Your task to perform on an android device: Clear the cart on newegg. Add "alienware aurora" to the cart on newegg Image 0: 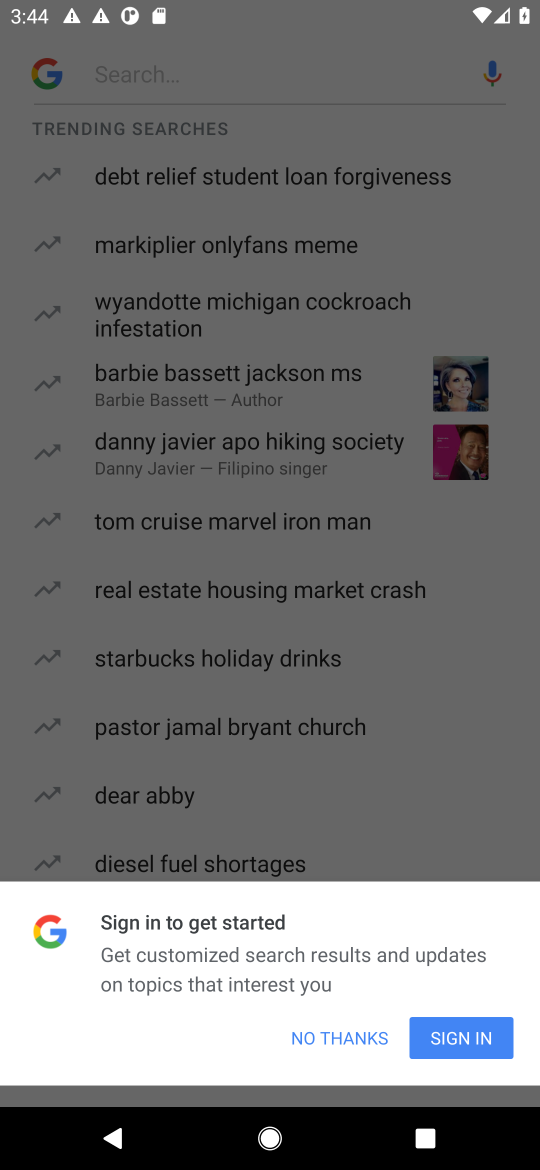
Step 0: press home button
Your task to perform on an android device: Clear the cart on newegg. Add "alienware aurora" to the cart on newegg Image 1: 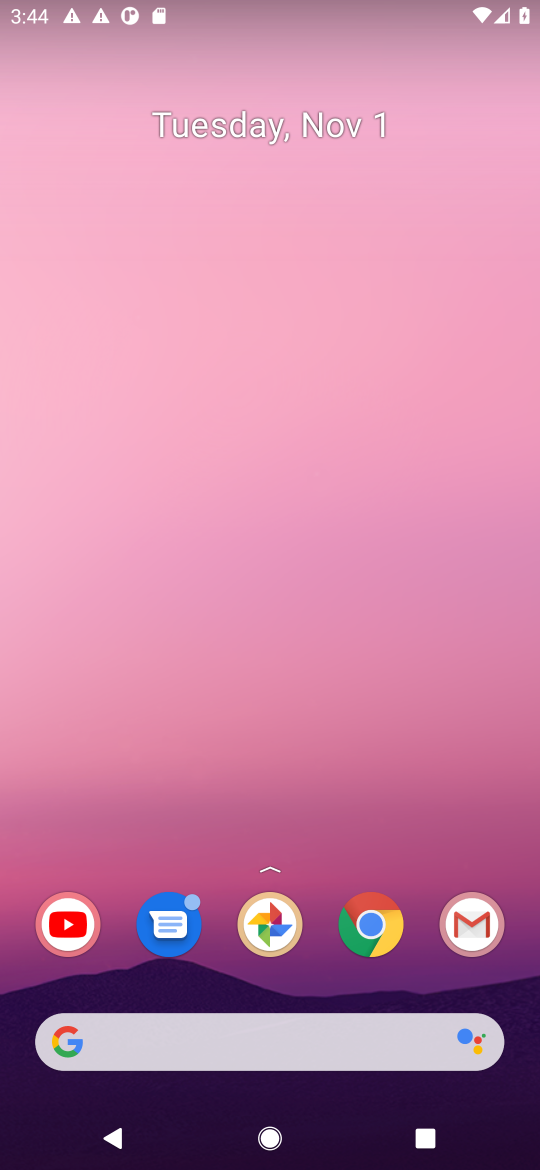
Step 1: drag from (155, 879) to (196, 0)
Your task to perform on an android device: Clear the cart on newegg. Add "alienware aurora" to the cart on newegg Image 2: 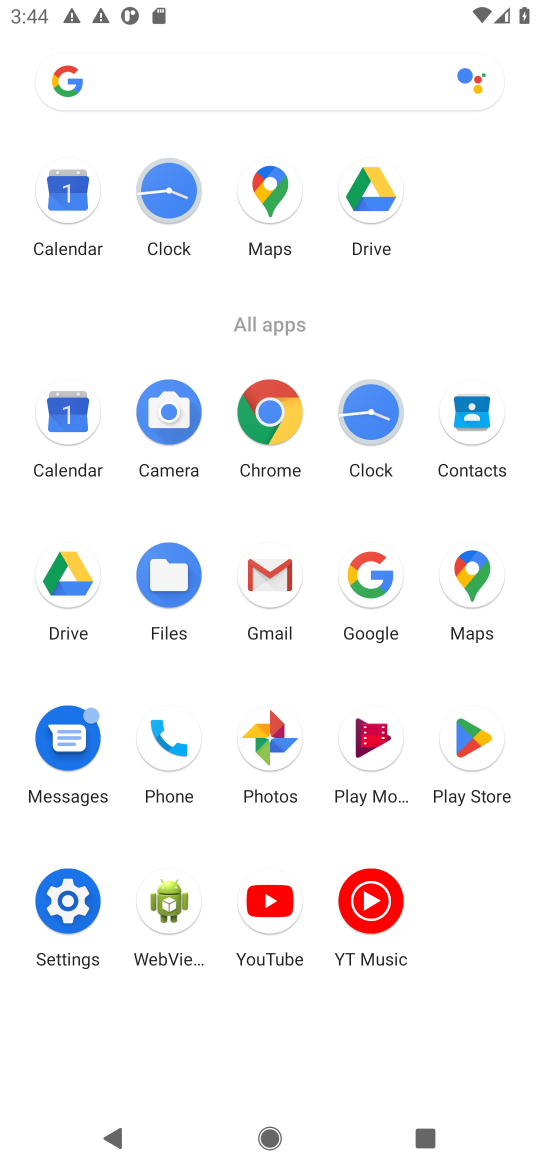
Step 2: click (289, 414)
Your task to perform on an android device: Clear the cart on newegg. Add "alienware aurora" to the cart on newegg Image 3: 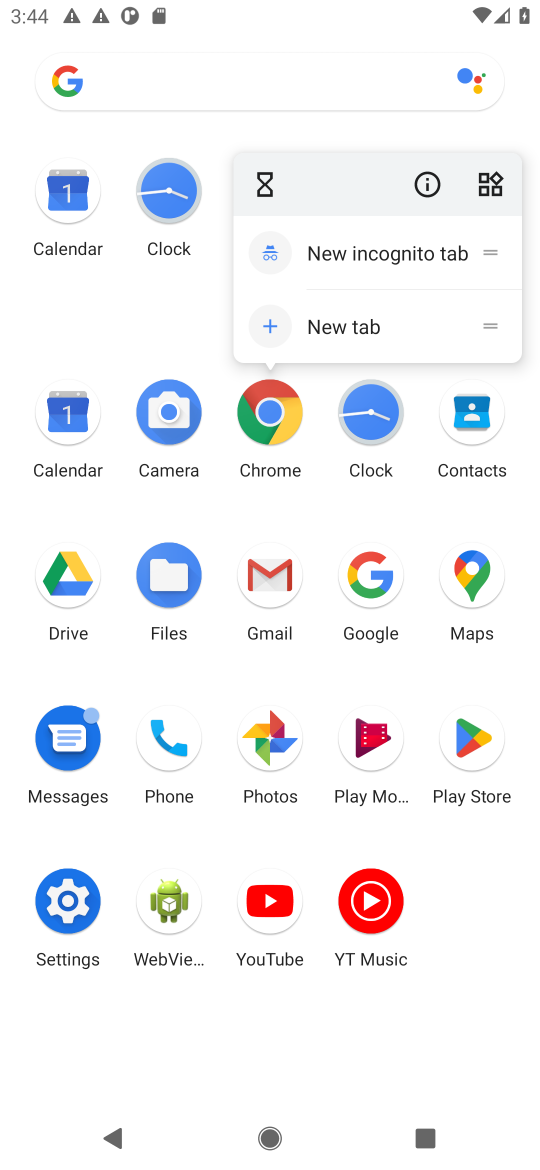
Step 3: click (289, 416)
Your task to perform on an android device: Clear the cart on newegg. Add "alienware aurora" to the cart on newegg Image 4: 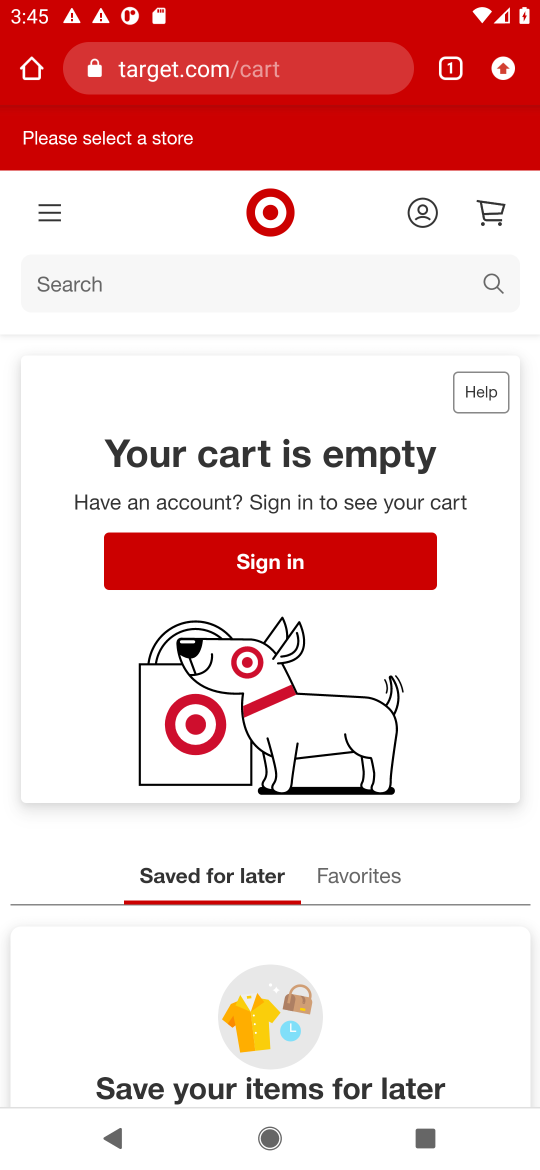
Step 4: click (259, 64)
Your task to perform on an android device: Clear the cart on newegg. Add "alienware aurora" to the cart on newegg Image 5: 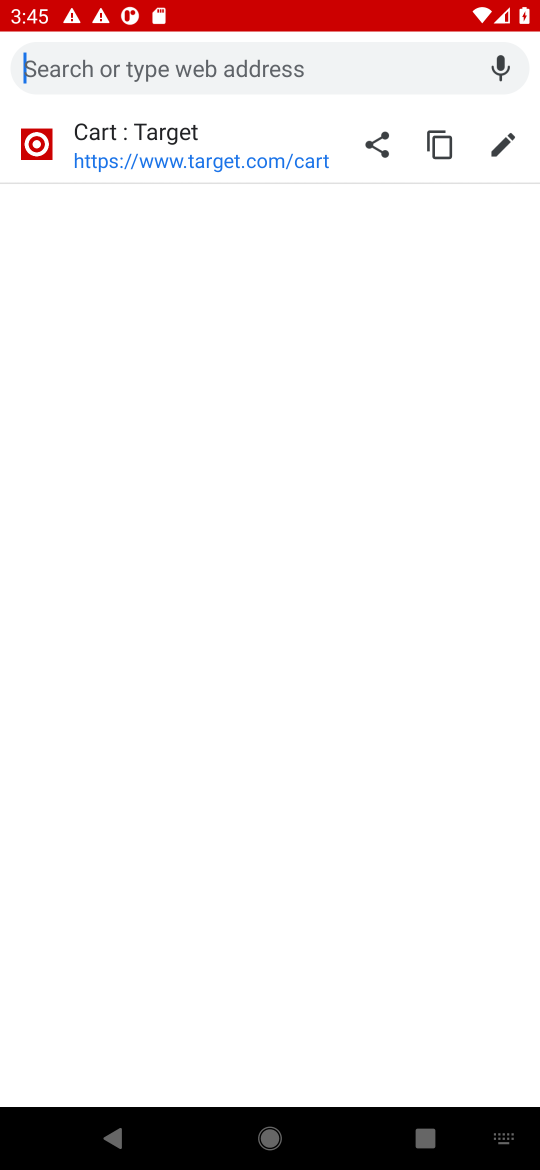
Step 5: type "newegg"
Your task to perform on an android device: Clear the cart on newegg. Add "alienware aurora" to the cart on newegg Image 6: 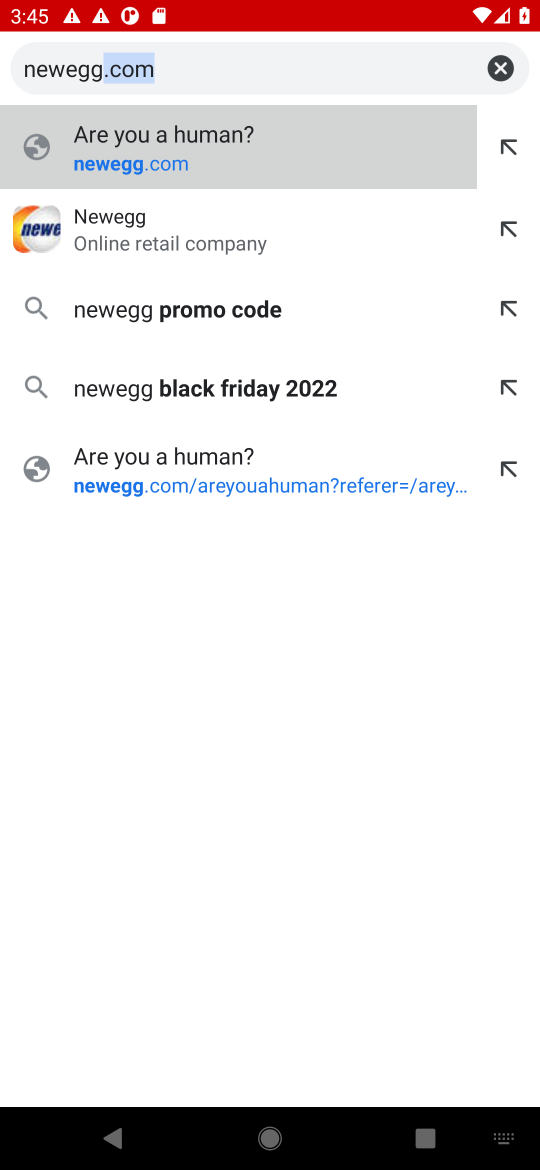
Step 6: press enter
Your task to perform on an android device: Clear the cart on newegg. Add "alienware aurora" to the cart on newegg Image 7: 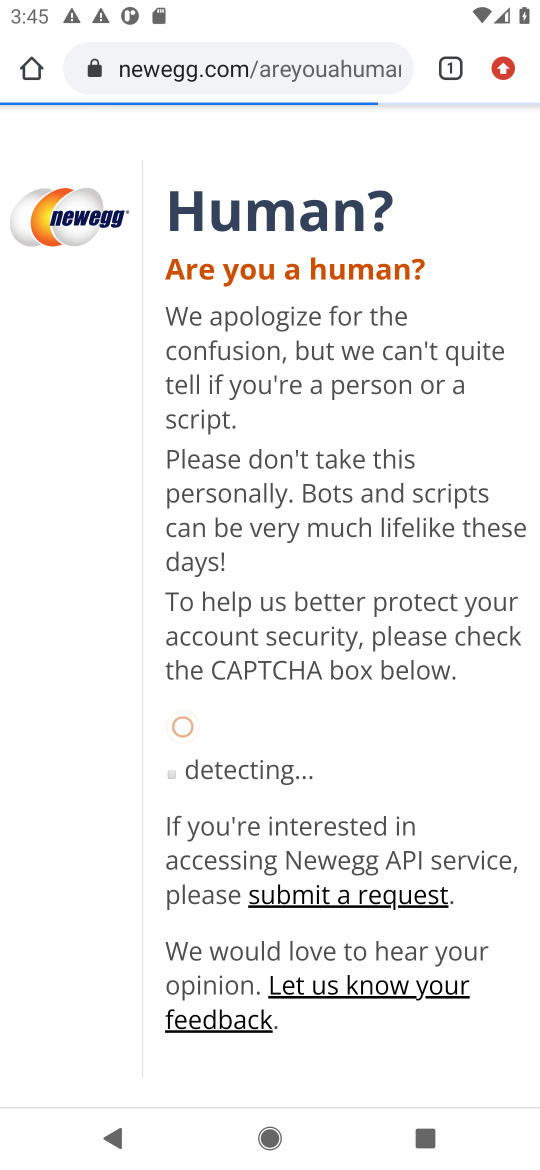
Step 7: drag from (238, 836) to (200, 462)
Your task to perform on an android device: Clear the cart on newegg. Add "alienware aurora" to the cart on newegg Image 8: 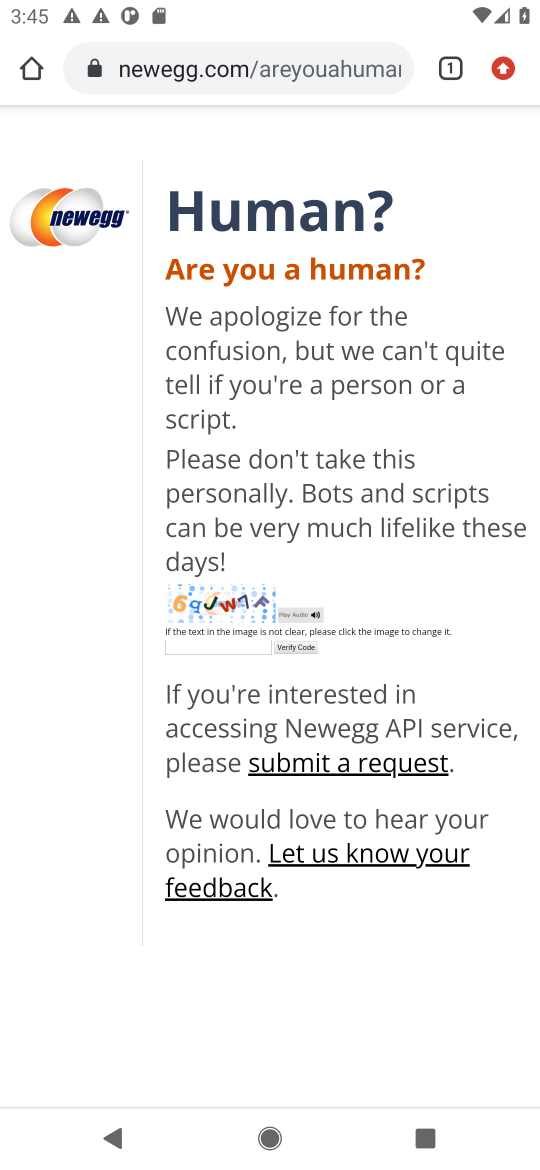
Step 8: click (203, 639)
Your task to perform on an android device: Clear the cart on newegg. Add "alienware aurora" to the cart on newegg Image 9: 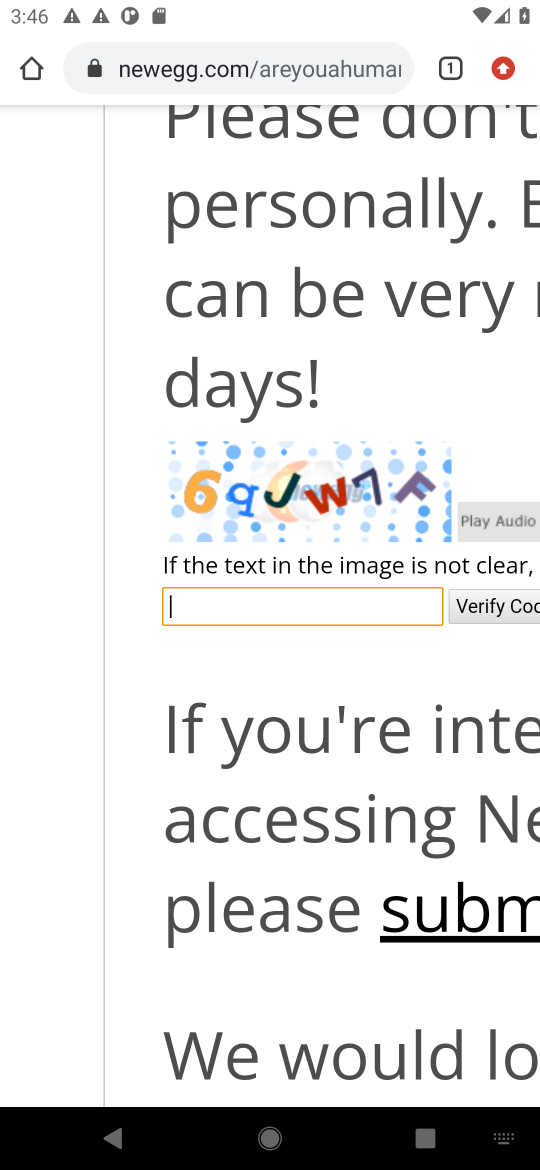
Step 9: type "6qjw7F"
Your task to perform on an android device: Clear the cart on newegg. Add "alienware aurora" to the cart on newegg Image 10: 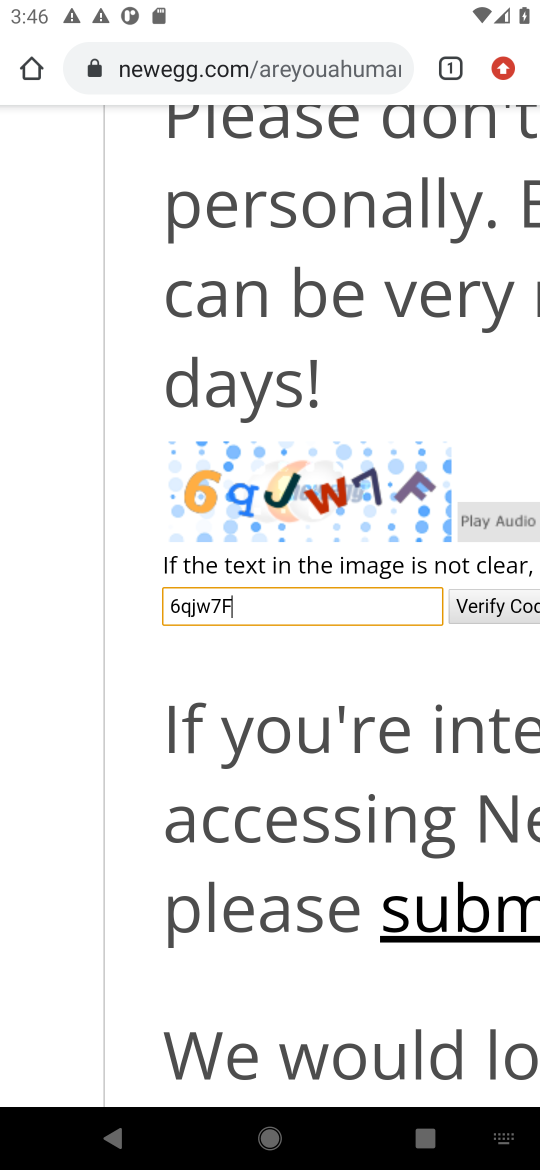
Step 10: press enter
Your task to perform on an android device: Clear the cart on newegg. Add "alienware aurora" to the cart on newegg Image 11: 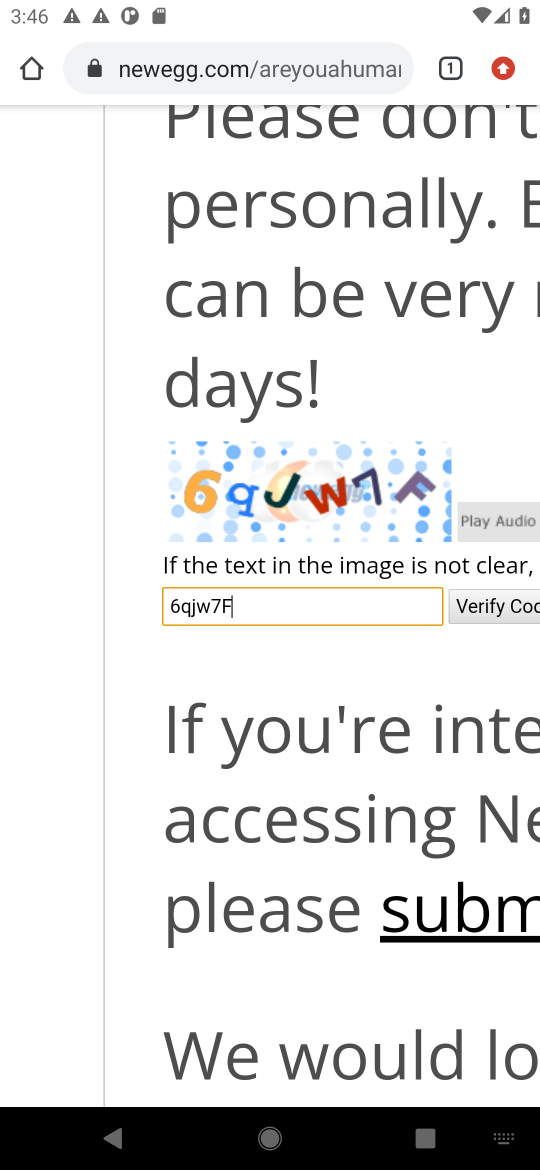
Step 11: click (504, 600)
Your task to perform on an android device: Clear the cart on newegg. Add "alienware aurora" to the cart on newegg Image 12: 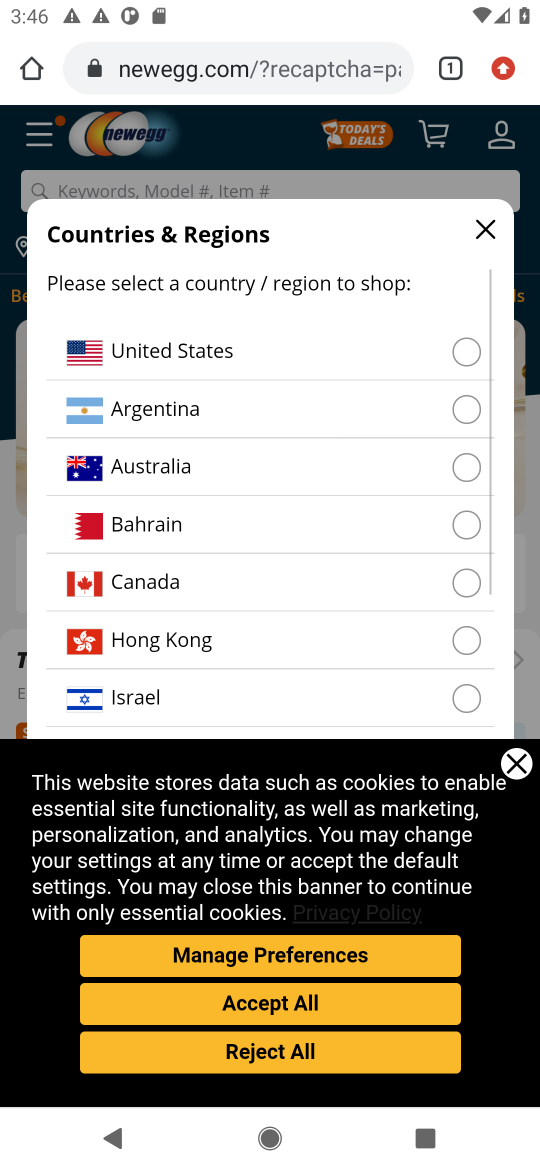
Step 12: click (428, 355)
Your task to perform on an android device: Clear the cart on newegg. Add "alienware aurora" to the cart on newegg Image 13: 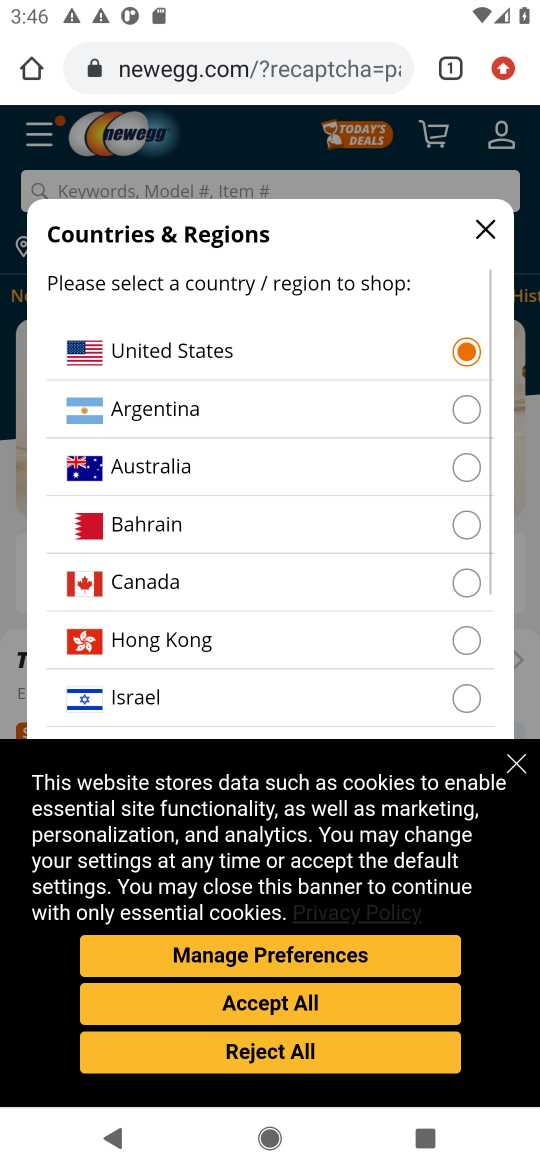
Step 13: click (520, 773)
Your task to perform on an android device: Clear the cart on newegg. Add "alienware aurora" to the cart on newegg Image 14: 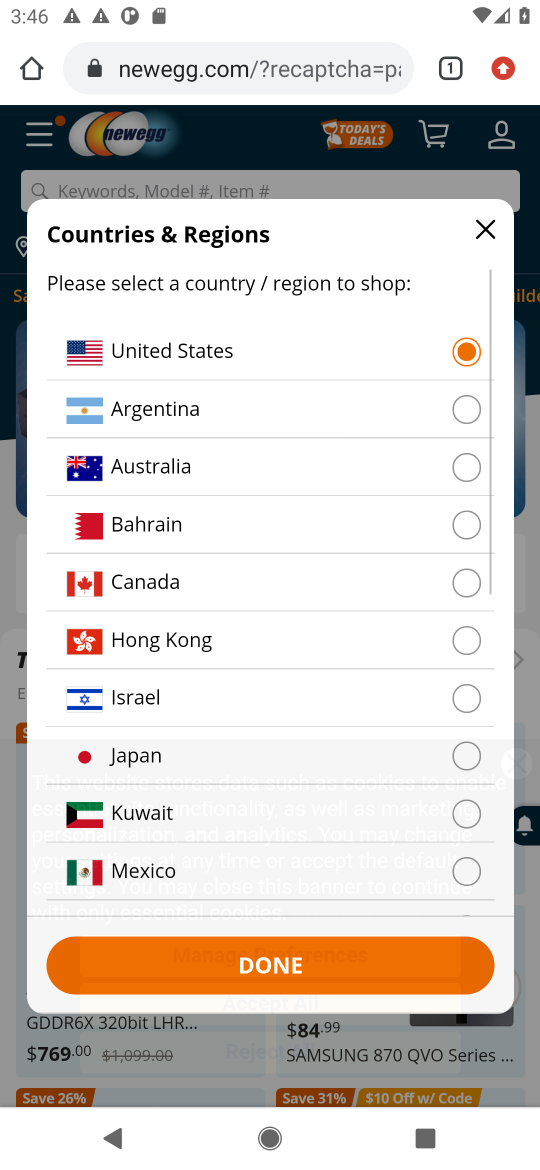
Step 14: click (275, 991)
Your task to perform on an android device: Clear the cart on newegg. Add "alienware aurora" to the cart on newegg Image 15: 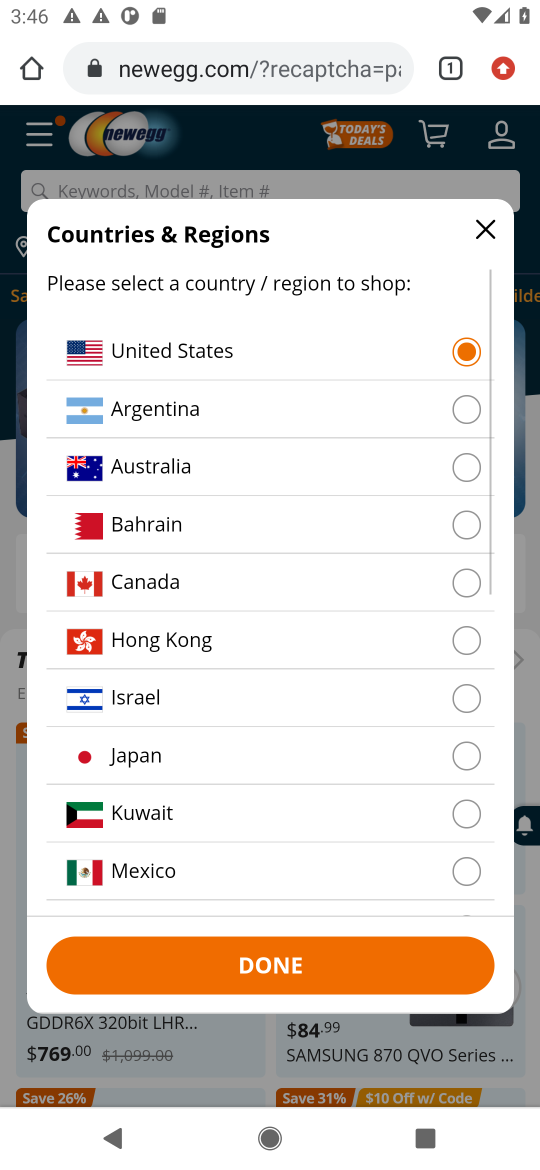
Step 15: click (261, 963)
Your task to perform on an android device: Clear the cart on newegg. Add "alienware aurora" to the cart on newegg Image 16: 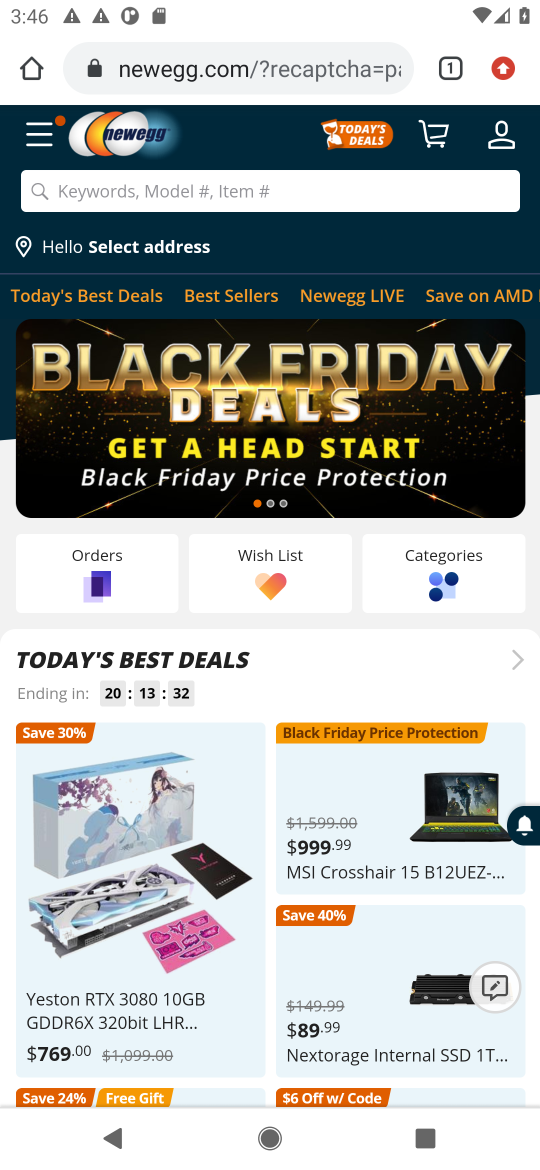
Step 16: click (193, 186)
Your task to perform on an android device: Clear the cart on newegg. Add "alienware aurora" to the cart on newegg Image 17: 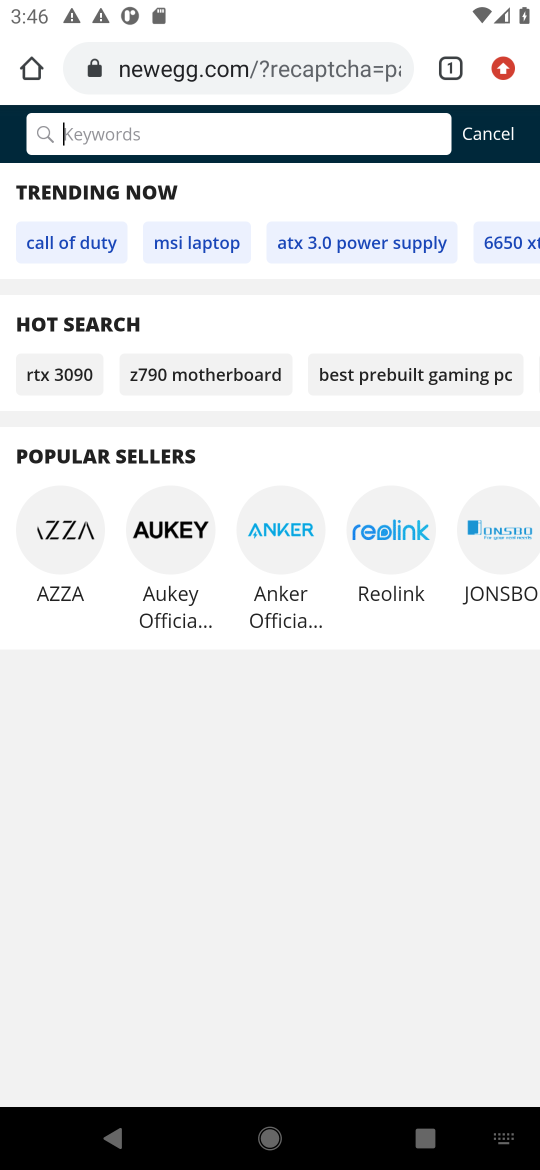
Step 17: press enter
Your task to perform on an android device: Clear the cart on newegg. Add "alienware aurora" to the cart on newegg Image 18: 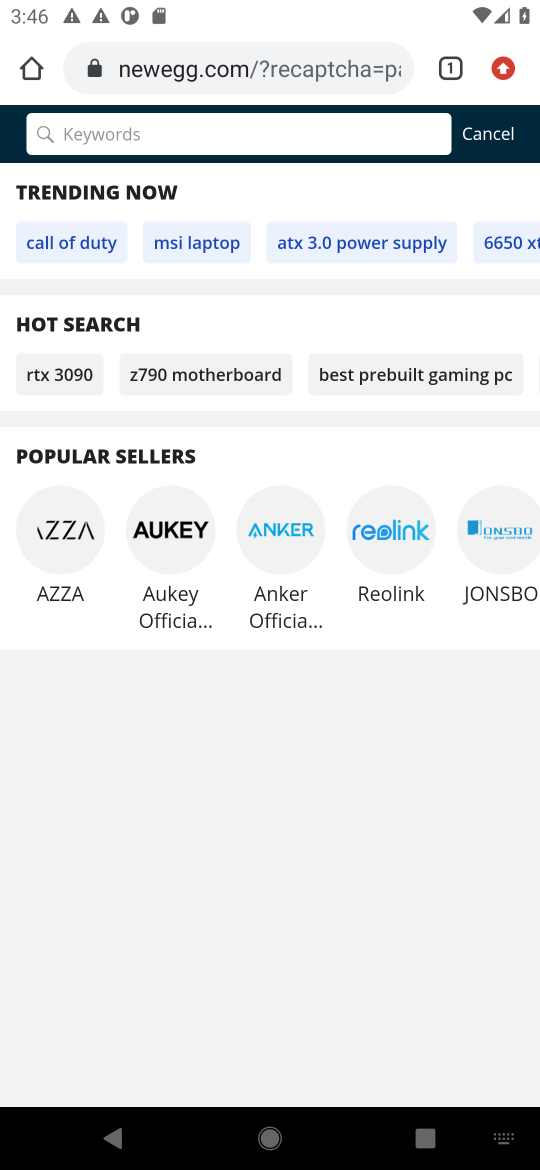
Step 18: type "alienware aurora"
Your task to perform on an android device: Clear the cart on newegg. Add "alienware aurora" to the cart on newegg Image 19: 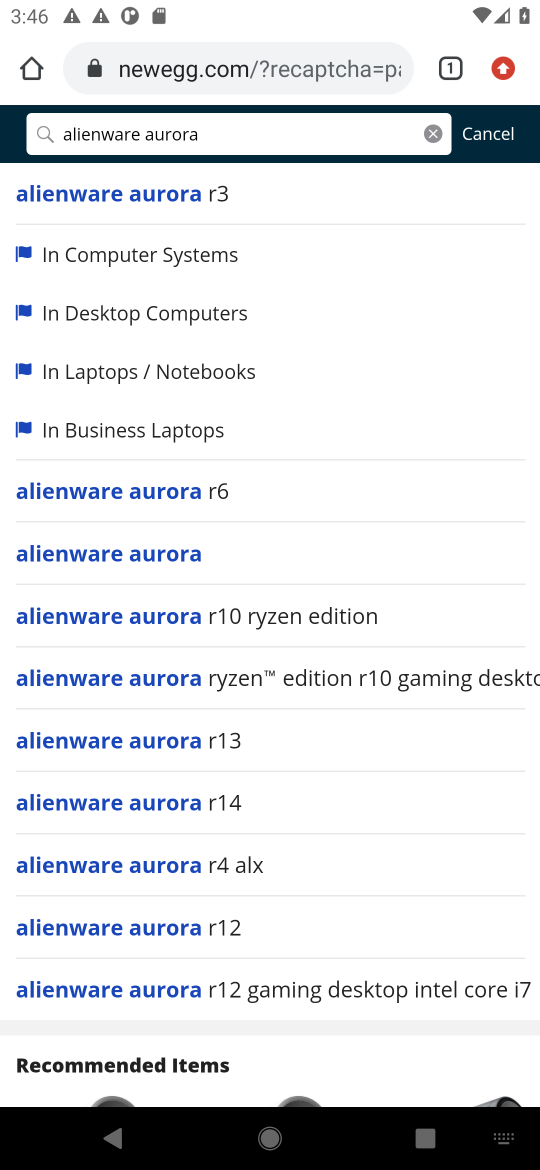
Step 19: press enter
Your task to perform on an android device: Clear the cart on newegg. Add "alienware aurora" to the cart on newegg Image 20: 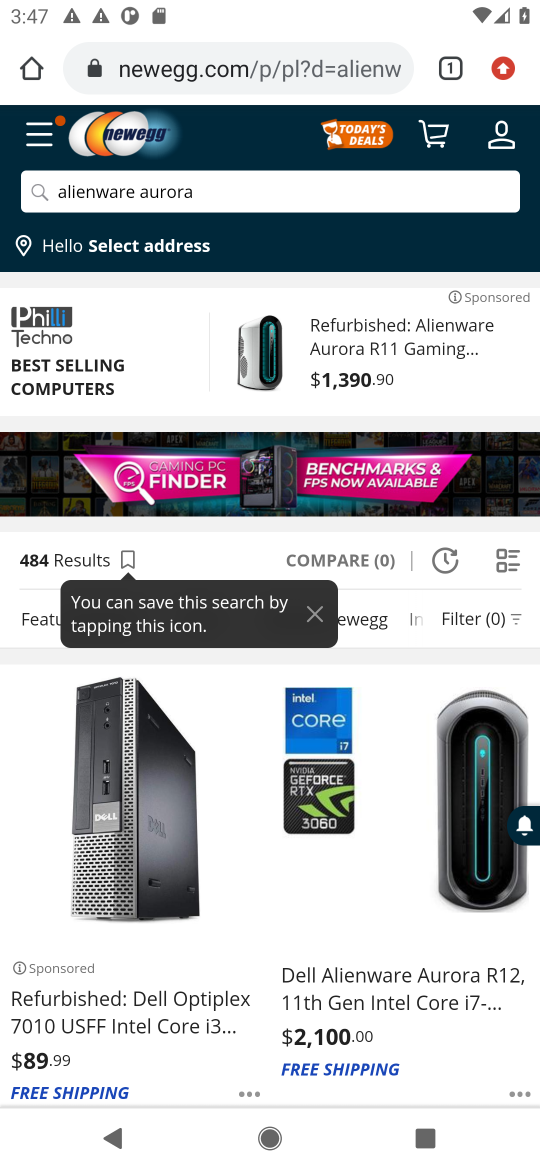
Step 20: drag from (379, 629) to (366, 479)
Your task to perform on an android device: Clear the cart on newegg. Add "alienware aurora" to the cart on newegg Image 21: 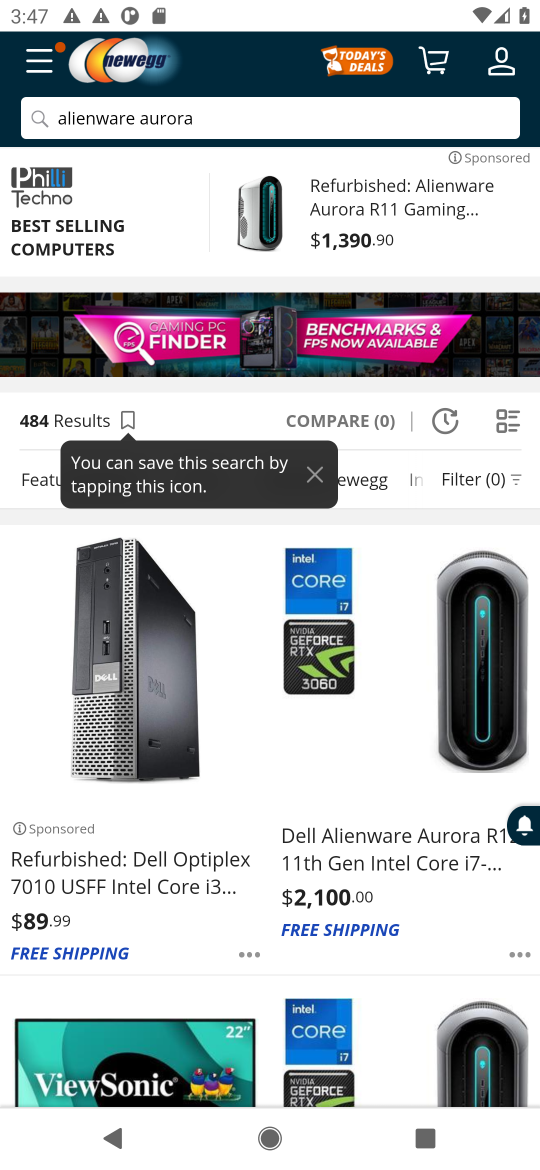
Step 21: drag from (366, 511) to (271, 938)
Your task to perform on an android device: Clear the cart on newegg. Add "alienware aurora" to the cart on newegg Image 22: 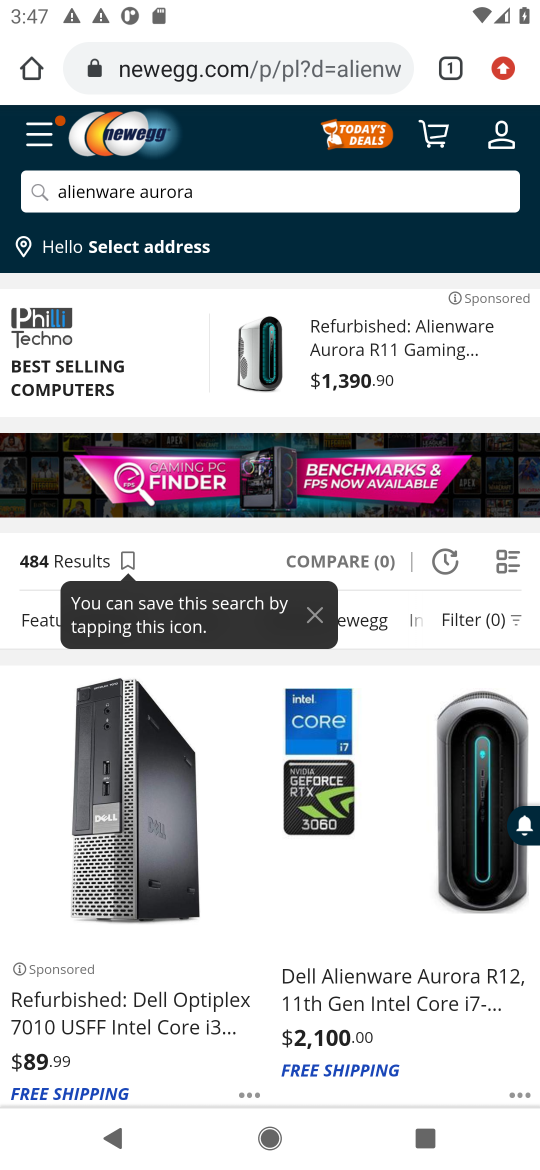
Step 22: drag from (296, 366) to (349, 813)
Your task to perform on an android device: Clear the cart on newegg. Add "alienware aurora" to the cart on newegg Image 23: 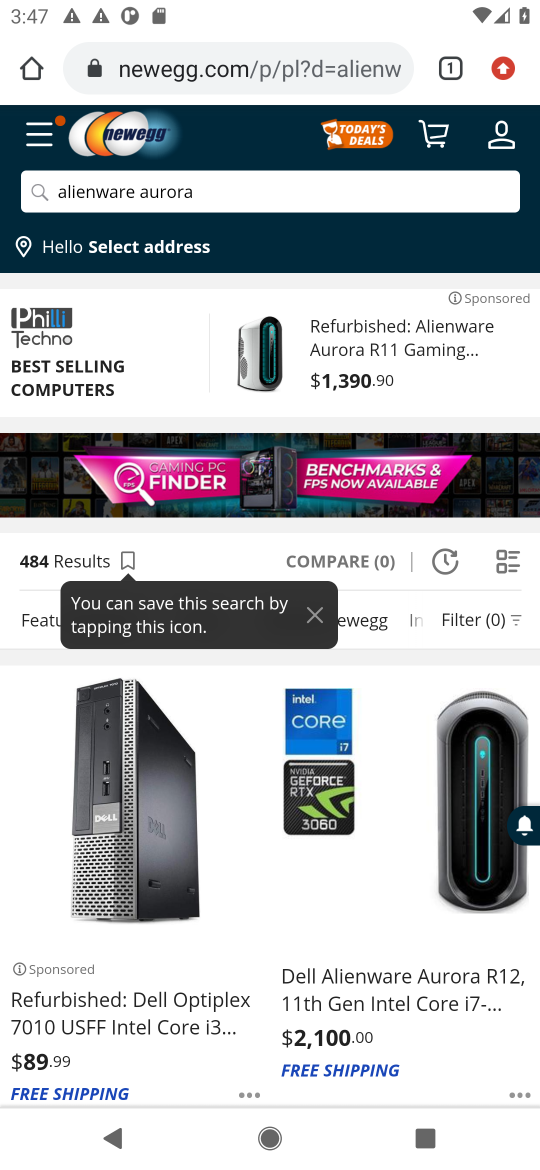
Step 23: drag from (421, 376) to (389, 696)
Your task to perform on an android device: Clear the cart on newegg. Add "alienware aurora" to the cart on newegg Image 24: 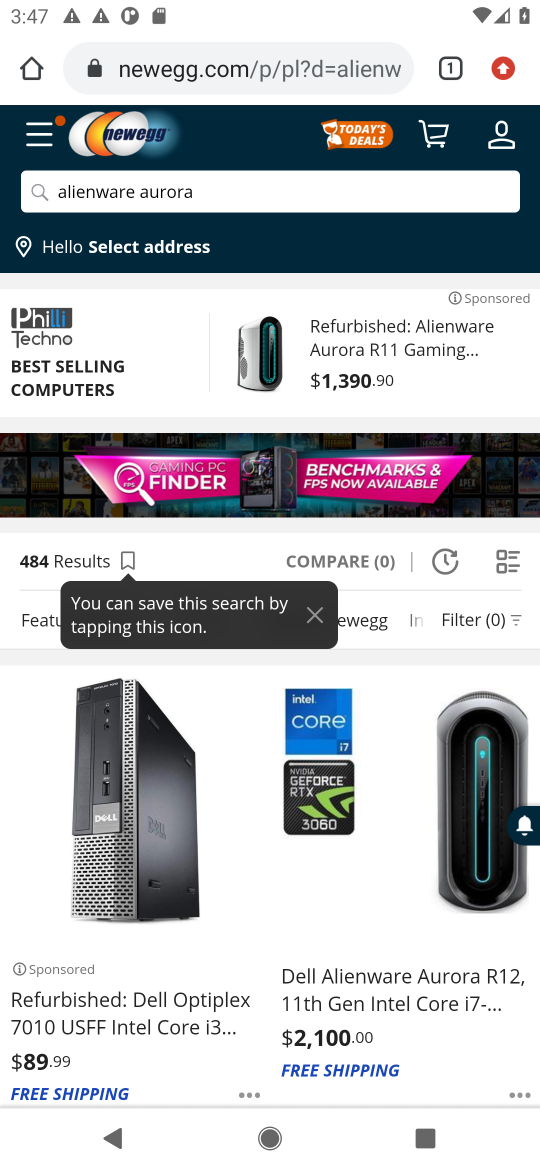
Step 24: drag from (261, 294) to (208, 671)
Your task to perform on an android device: Clear the cart on newegg. Add "alienware aurora" to the cart on newegg Image 25: 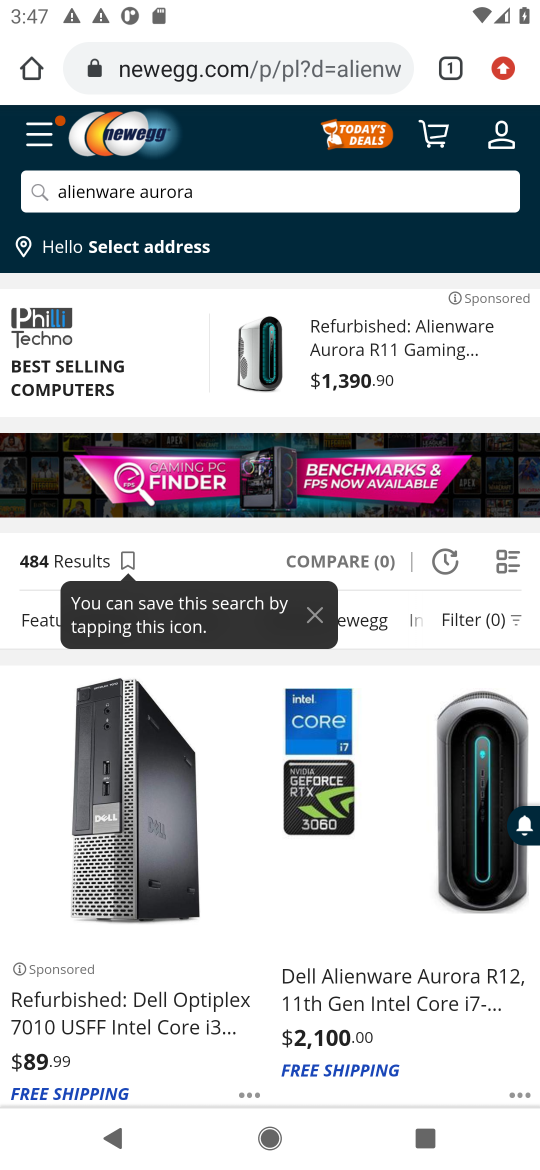
Step 25: click (127, 778)
Your task to perform on an android device: Clear the cart on newegg. Add "alienware aurora" to the cart on newegg Image 26: 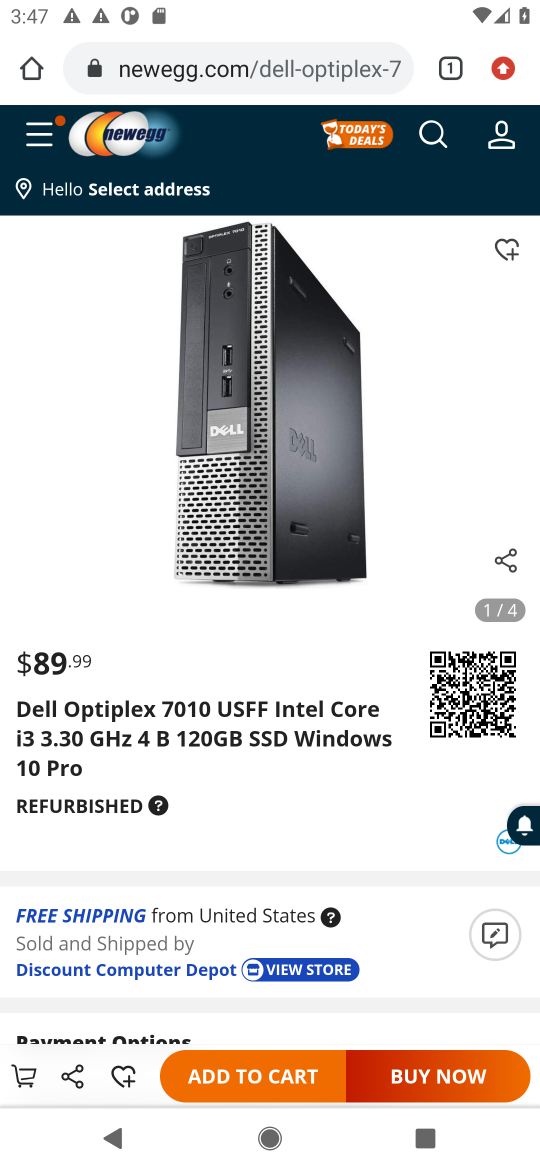
Step 26: click (243, 1070)
Your task to perform on an android device: Clear the cart on newegg. Add "alienware aurora" to the cart on newegg Image 27: 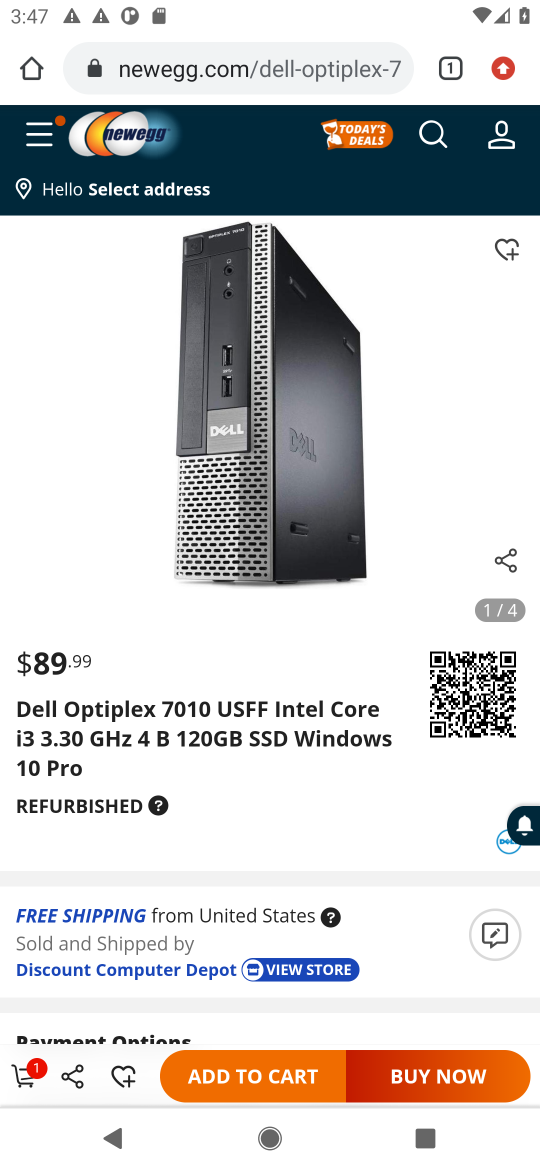
Step 27: task complete